Your task to perform on an android device: Open Wikipedia Image 0: 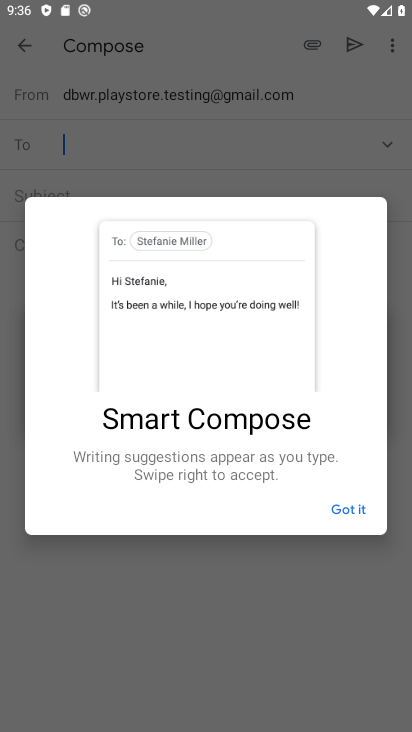
Step 0: press home button
Your task to perform on an android device: Open Wikipedia Image 1: 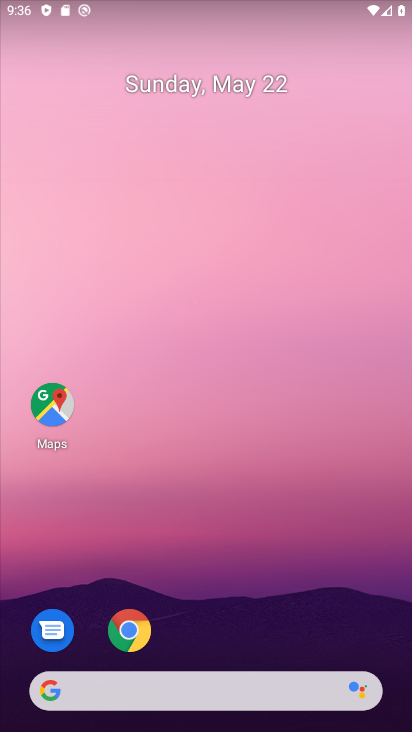
Step 1: click (123, 625)
Your task to perform on an android device: Open Wikipedia Image 2: 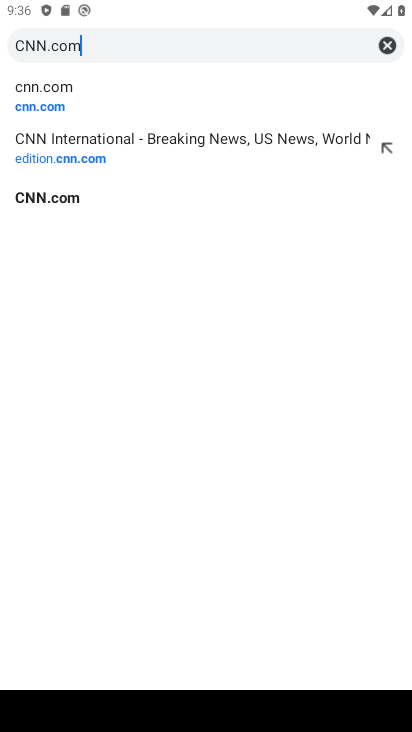
Step 2: click (389, 44)
Your task to perform on an android device: Open Wikipedia Image 3: 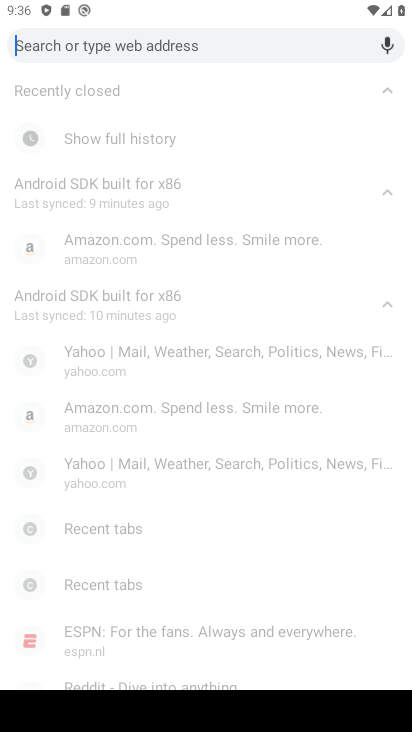
Step 3: type "Wikipedia"
Your task to perform on an android device: Open Wikipedia Image 4: 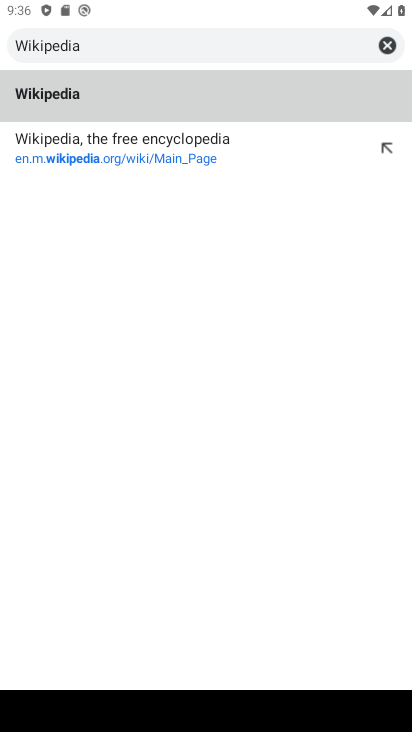
Step 4: click (201, 84)
Your task to perform on an android device: Open Wikipedia Image 5: 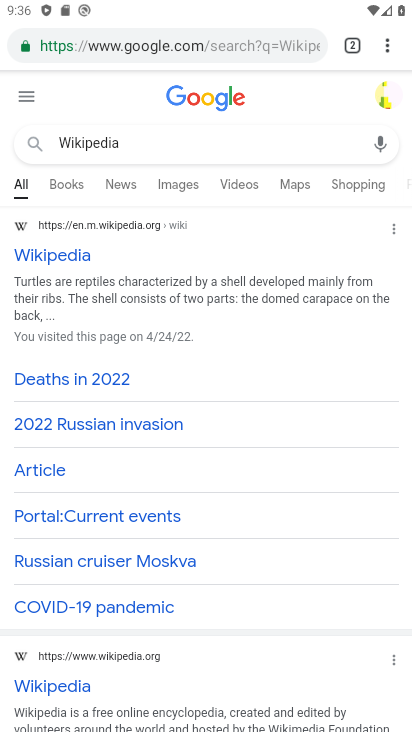
Step 5: task complete